Your task to perform on an android device: Go to Google maps Image 0: 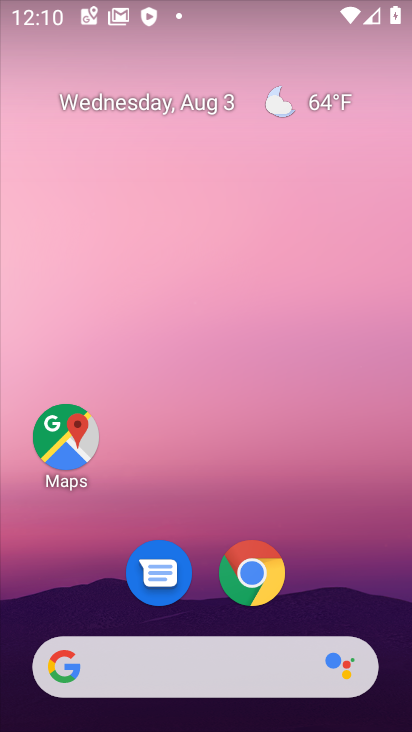
Step 0: drag from (174, 625) to (324, 229)
Your task to perform on an android device: Go to Google maps Image 1: 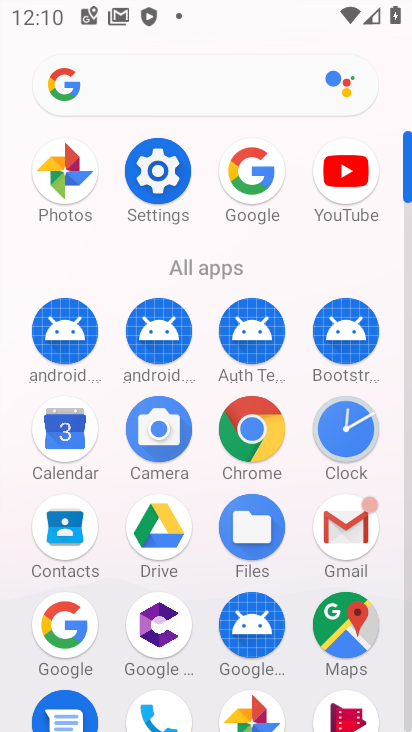
Step 1: drag from (222, 620) to (203, 159)
Your task to perform on an android device: Go to Google maps Image 2: 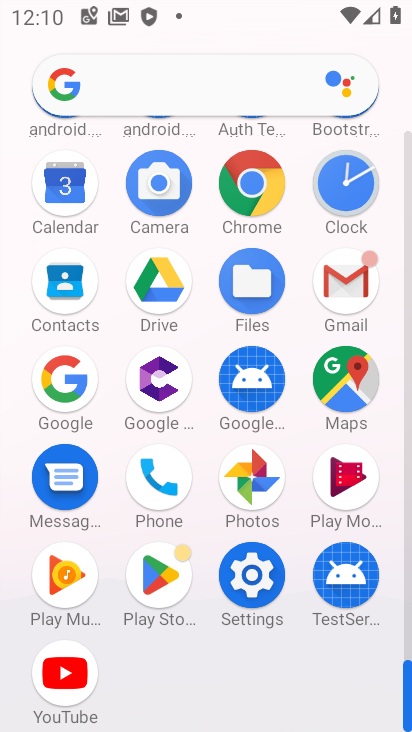
Step 2: click (342, 375)
Your task to perform on an android device: Go to Google maps Image 3: 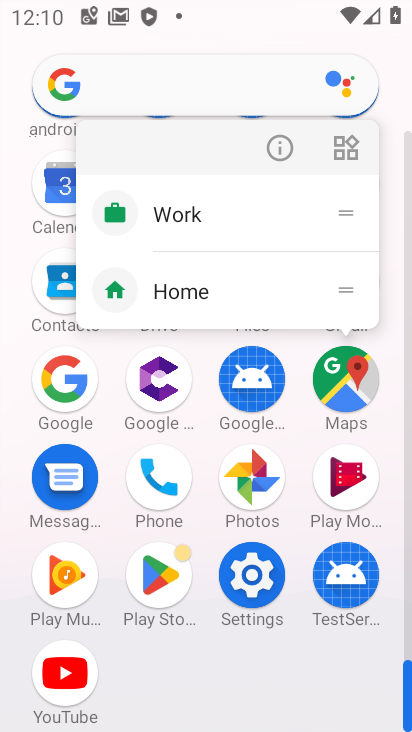
Step 3: click (280, 155)
Your task to perform on an android device: Go to Google maps Image 4: 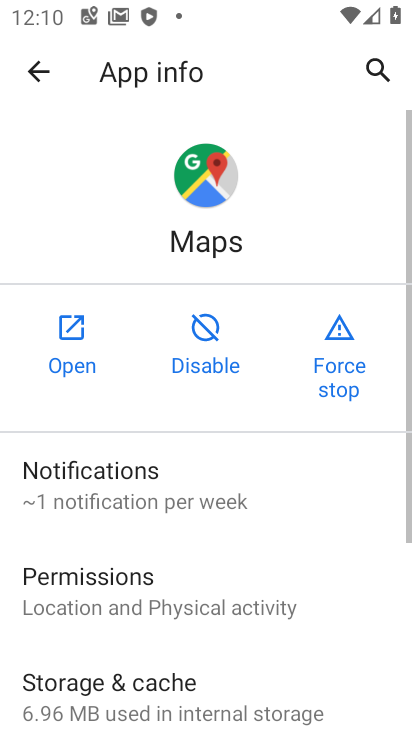
Step 4: click (69, 344)
Your task to perform on an android device: Go to Google maps Image 5: 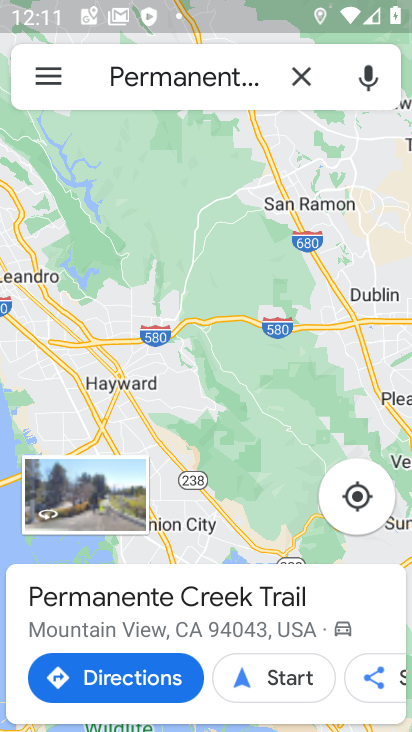
Step 5: task complete